Your task to perform on an android device: Go to ESPN.com Image 0: 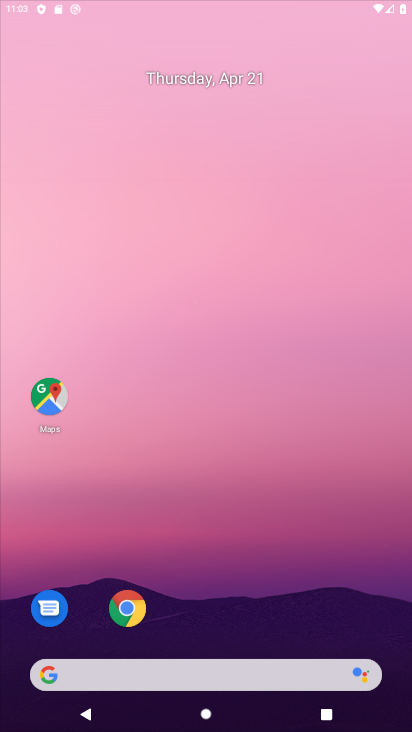
Step 0: drag from (315, 215) to (238, 155)
Your task to perform on an android device: Go to ESPN.com Image 1: 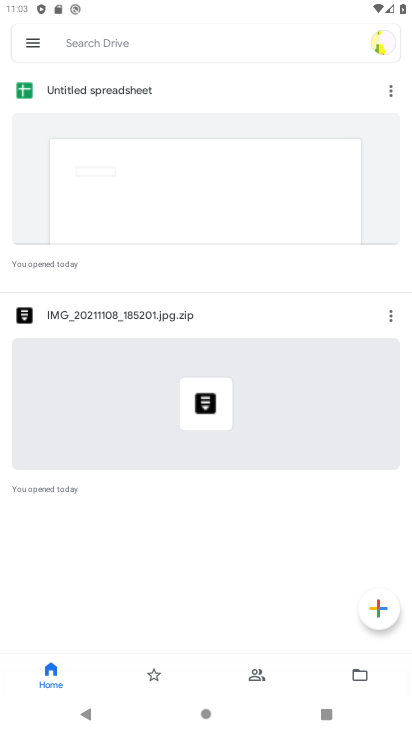
Step 1: press home button
Your task to perform on an android device: Go to ESPN.com Image 2: 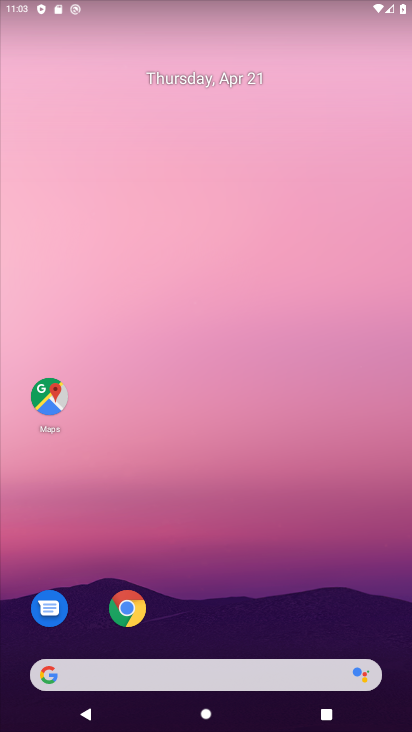
Step 2: drag from (221, 614) to (325, 155)
Your task to perform on an android device: Go to ESPN.com Image 3: 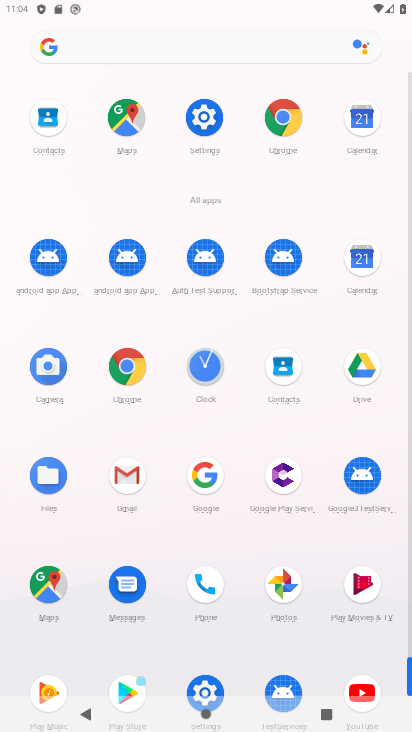
Step 3: click (127, 374)
Your task to perform on an android device: Go to ESPN.com Image 4: 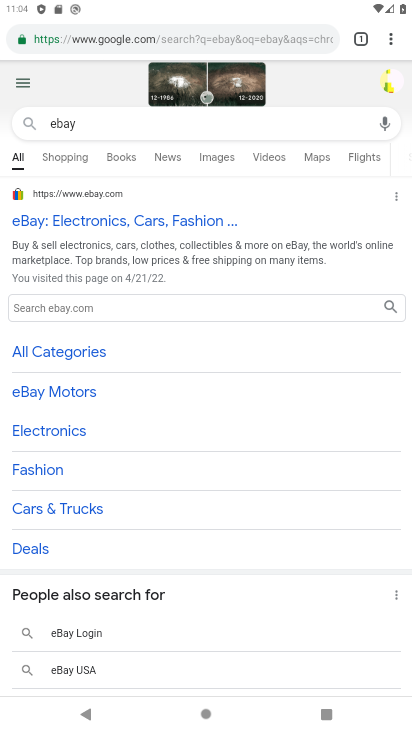
Step 4: click (74, 118)
Your task to perform on an android device: Go to ESPN.com Image 5: 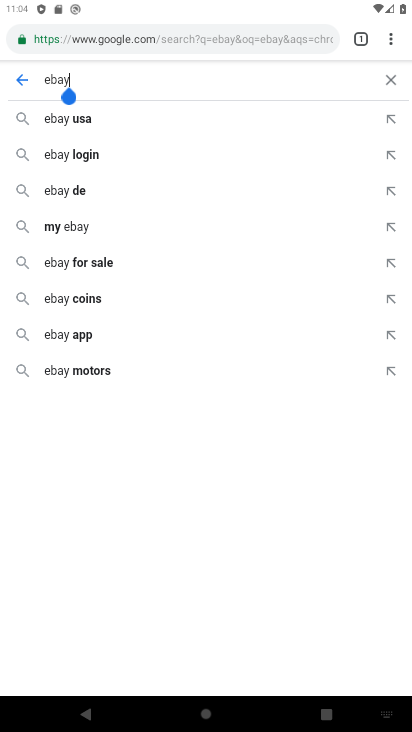
Step 5: click (398, 77)
Your task to perform on an android device: Go to ESPN.com Image 6: 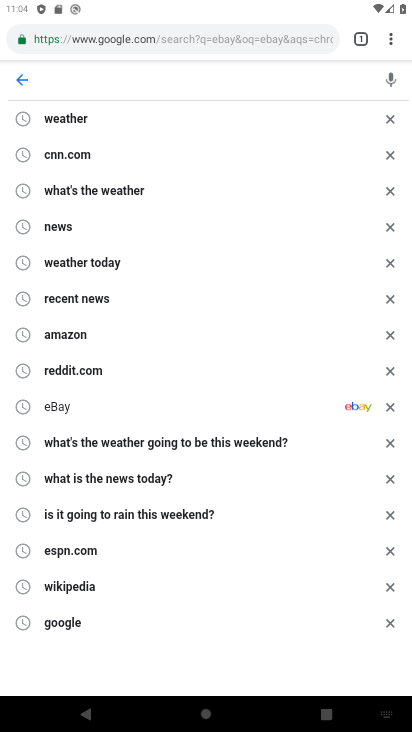
Step 6: type "espn.com"
Your task to perform on an android device: Go to ESPN.com Image 7: 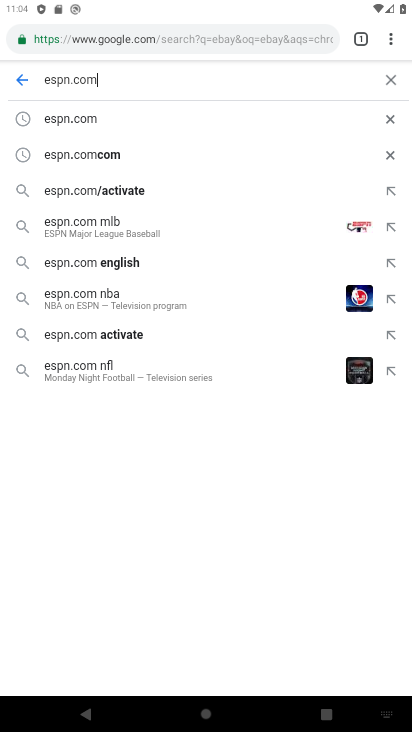
Step 7: click (61, 125)
Your task to perform on an android device: Go to ESPN.com Image 8: 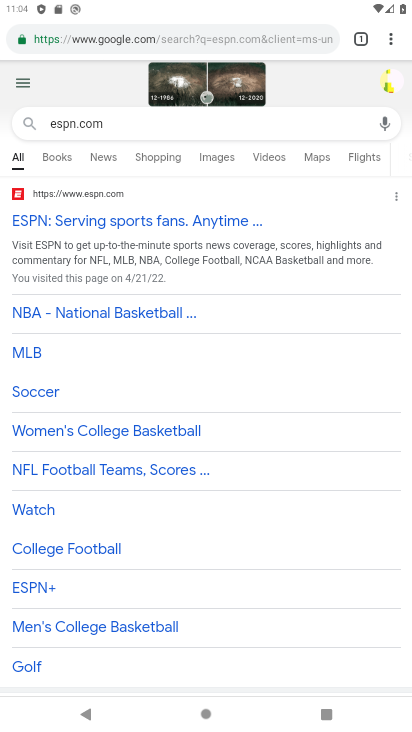
Step 8: task complete